Your task to perform on an android device: Open internet settings Image 0: 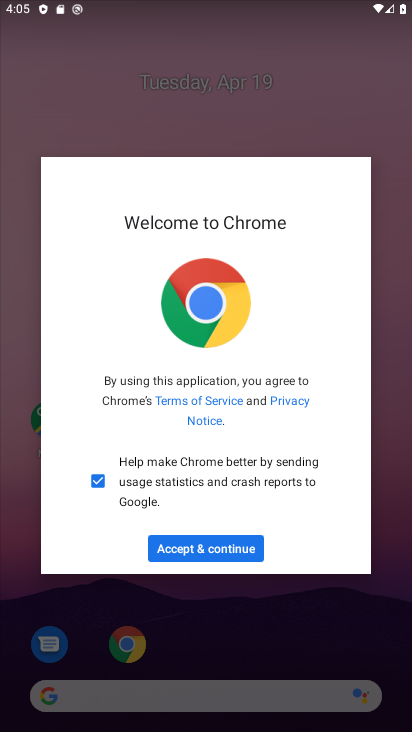
Step 0: press back button
Your task to perform on an android device: Open internet settings Image 1: 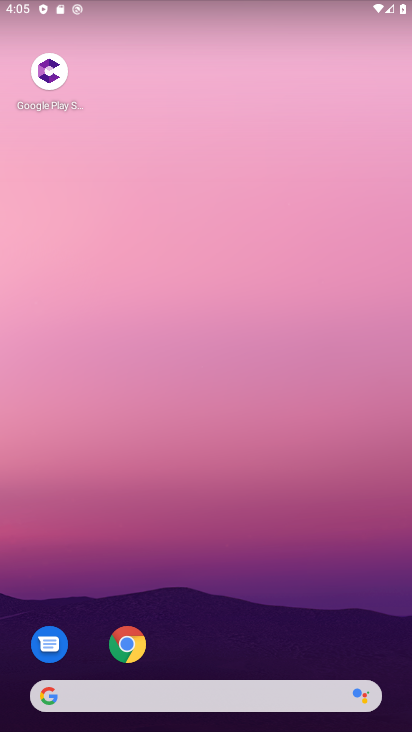
Step 1: drag from (258, 649) to (265, 48)
Your task to perform on an android device: Open internet settings Image 2: 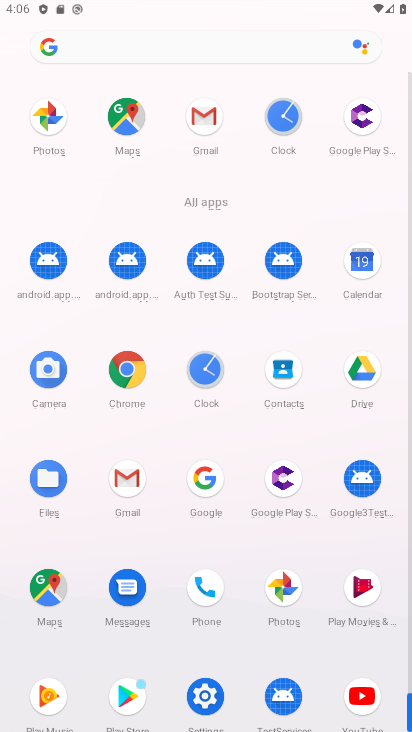
Step 2: click (202, 695)
Your task to perform on an android device: Open internet settings Image 3: 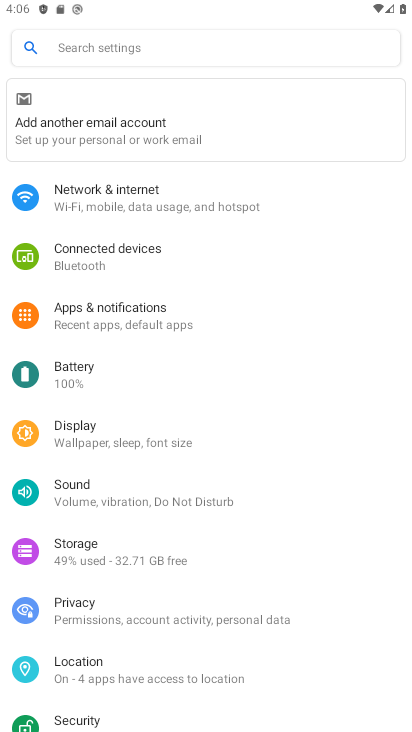
Step 3: click (150, 198)
Your task to perform on an android device: Open internet settings Image 4: 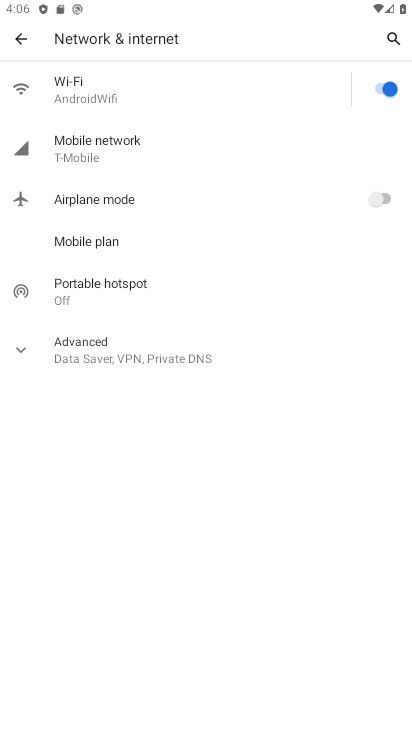
Step 4: click (52, 149)
Your task to perform on an android device: Open internet settings Image 5: 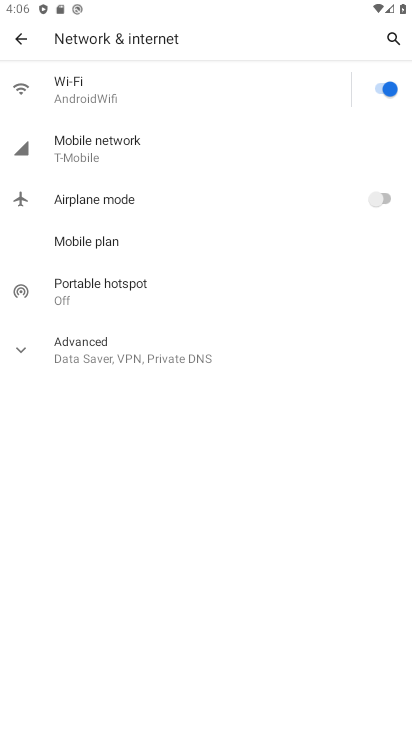
Step 5: click (130, 157)
Your task to perform on an android device: Open internet settings Image 6: 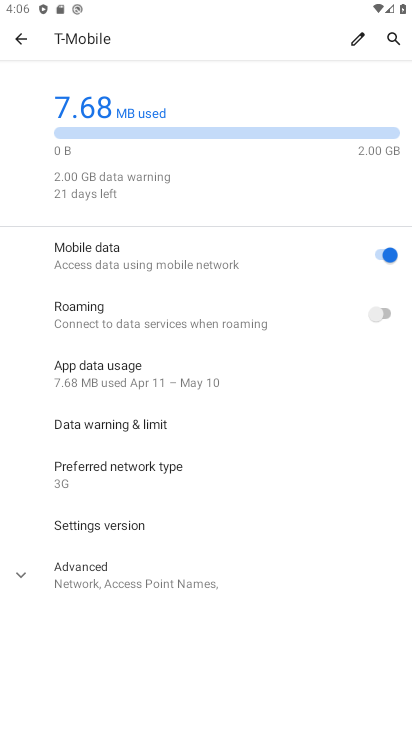
Step 6: task complete